Your task to perform on an android device: see tabs open on other devices in the chrome app Image 0: 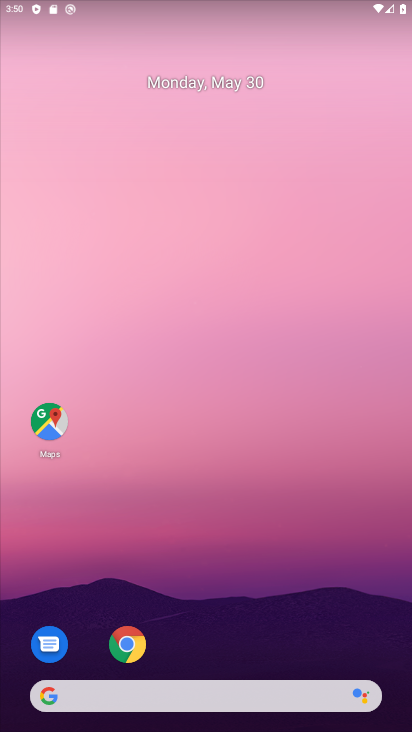
Step 0: click (137, 640)
Your task to perform on an android device: see tabs open on other devices in the chrome app Image 1: 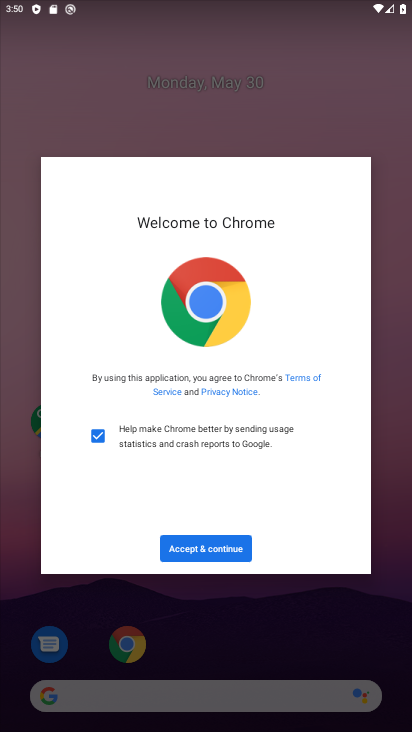
Step 1: click (218, 542)
Your task to perform on an android device: see tabs open on other devices in the chrome app Image 2: 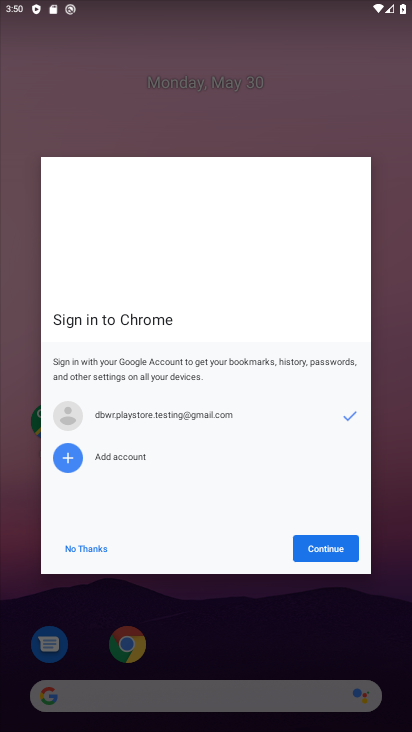
Step 2: click (345, 553)
Your task to perform on an android device: see tabs open on other devices in the chrome app Image 3: 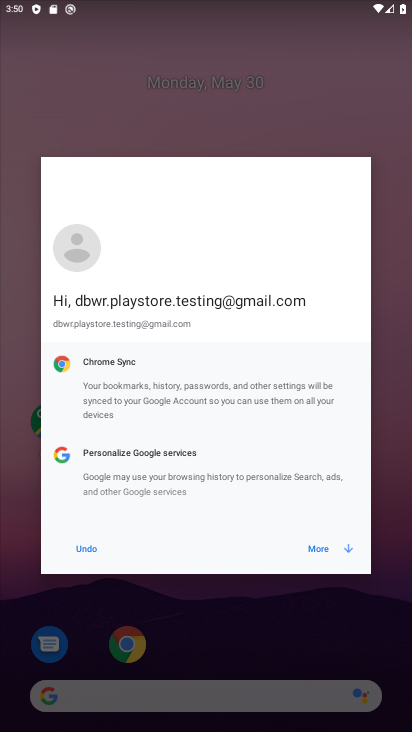
Step 3: click (328, 550)
Your task to perform on an android device: see tabs open on other devices in the chrome app Image 4: 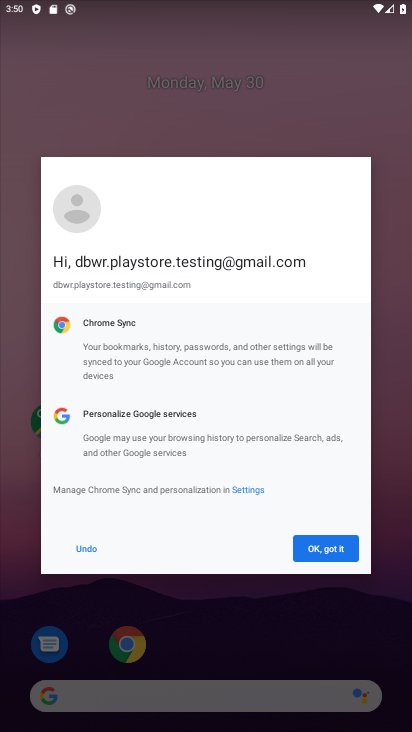
Step 4: click (328, 550)
Your task to perform on an android device: see tabs open on other devices in the chrome app Image 5: 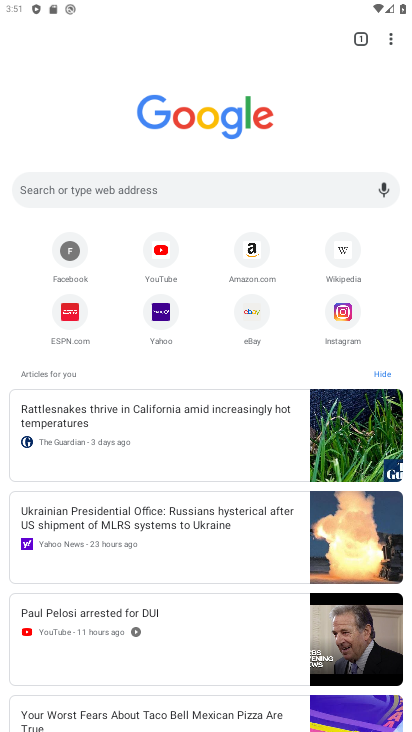
Step 5: click (393, 44)
Your task to perform on an android device: see tabs open on other devices in the chrome app Image 6: 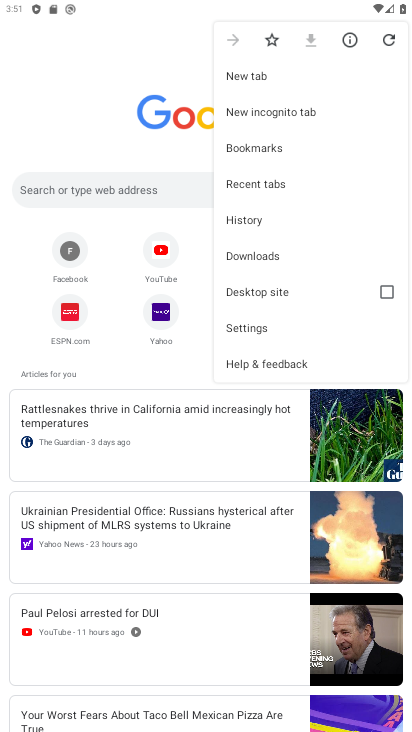
Step 6: click (273, 185)
Your task to perform on an android device: see tabs open on other devices in the chrome app Image 7: 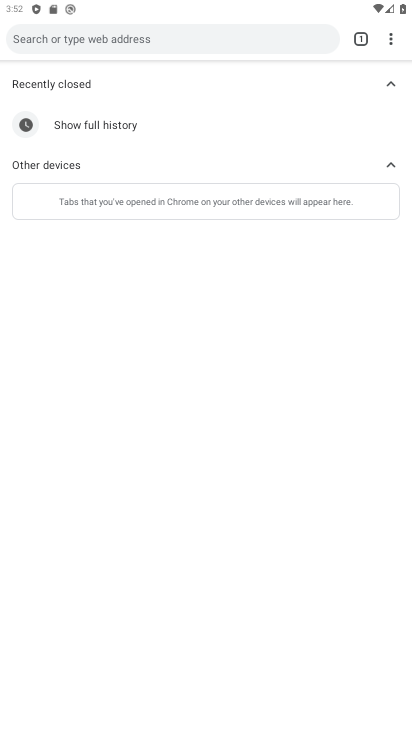
Step 7: press home button
Your task to perform on an android device: see tabs open on other devices in the chrome app Image 8: 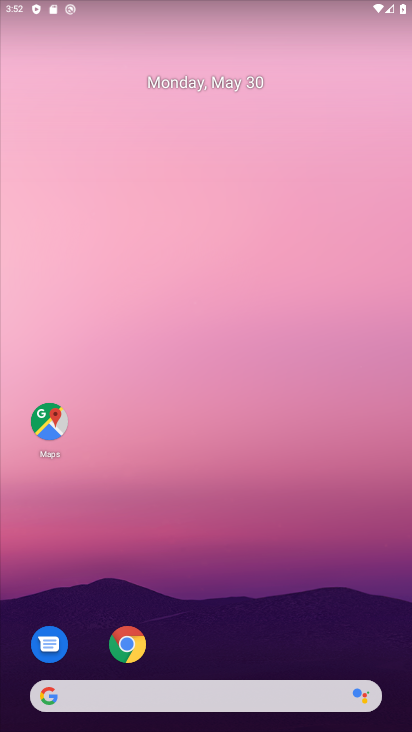
Step 8: click (127, 645)
Your task to perform on an android device: see tabs open on other devices in the chrome app Image 9: 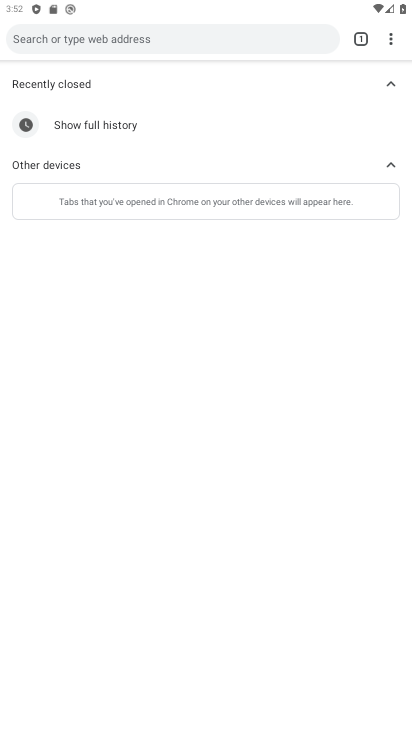
Step 9: click (404, 34)
Your task to perform on an android device: see tabs open on other devices in the chrome app Image 10: 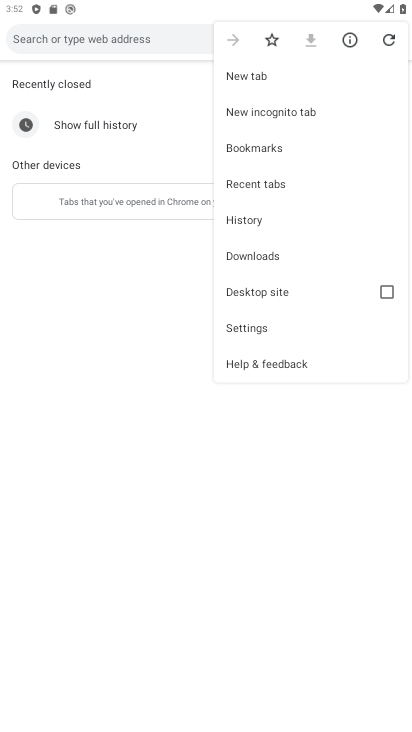
Step 10: click (270, 192)
Your task to perform on an android device: see tabs open on other devices in the chrome app Image 11: 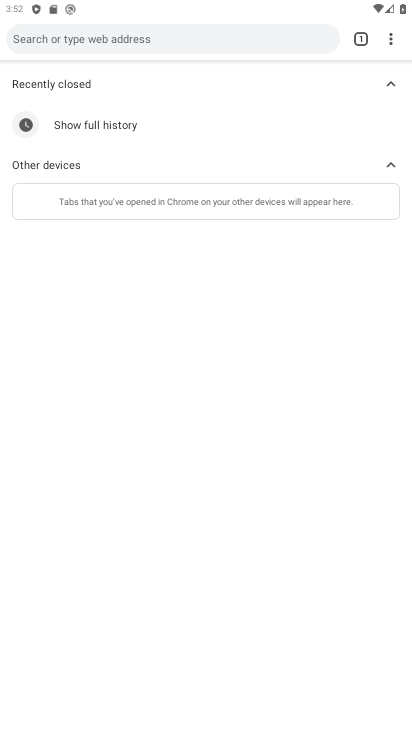
Step 11: click (262, 191)
Your task to perform on an android device: see tabs open on other devices in the chrome app Image 12: 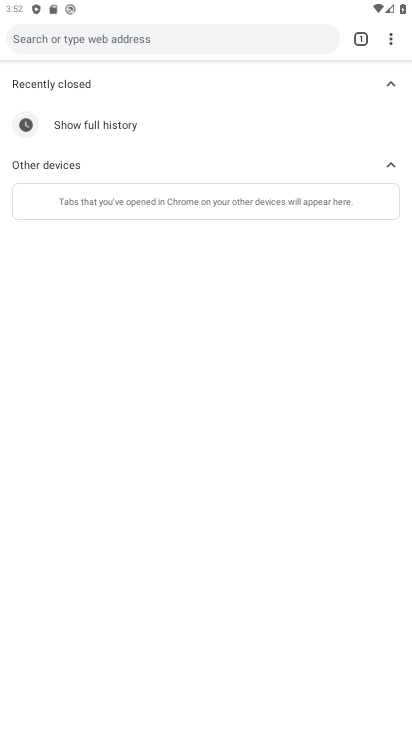
Step 12: click (390, 42)
Your task to perform on an android device: see tabs open on other devices in the chrome app Image 13: 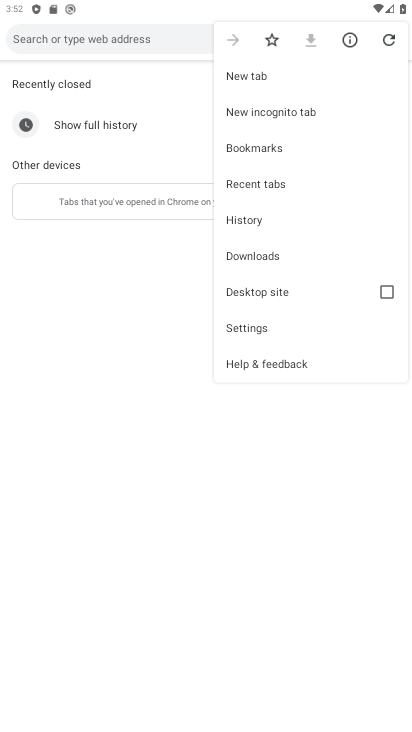
Step 13: click (234, 182)
Your task to perform on an android device: see tabs open on other devices in the chrome app Image 14: 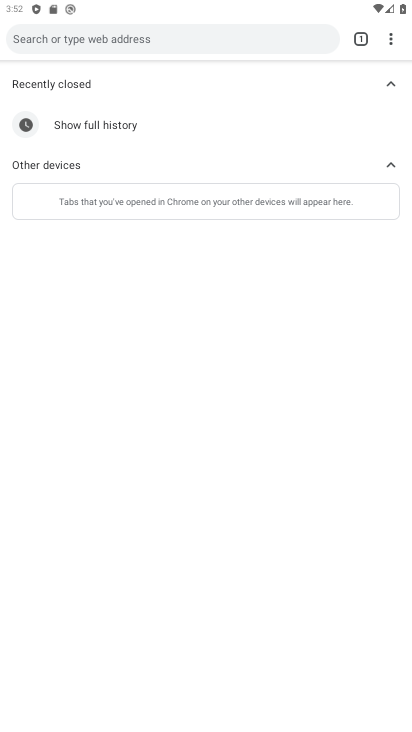
Step 14: task complete